Your task to perform on an android device: Go to Reddit.com Image 0: 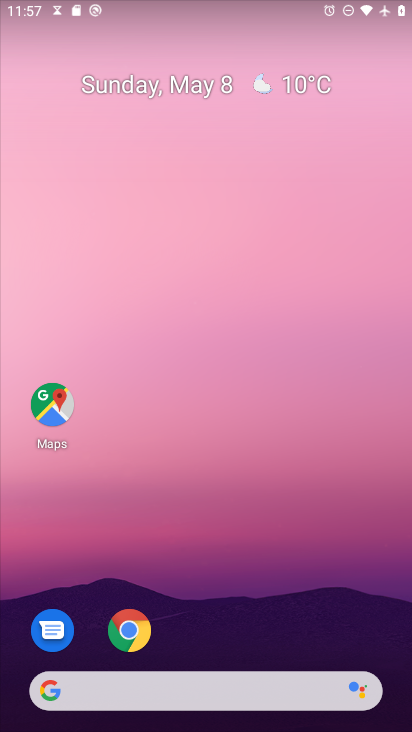
Step 0: click (137, 635)
Your task to perform on an android device: Go to Reddit.com Image 1: 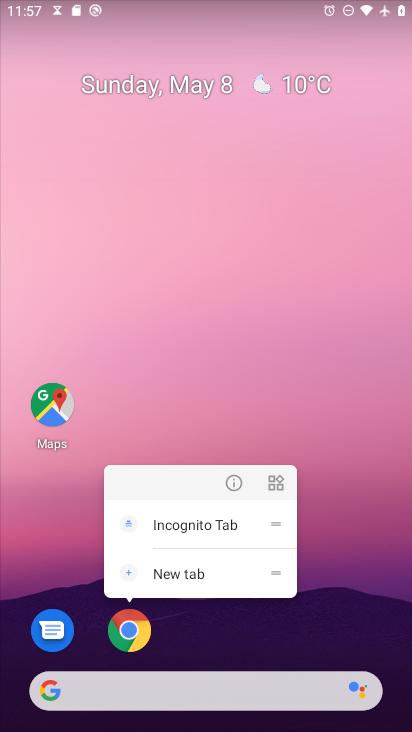
Step 1: click (129, 630)
Your task to perform on an android device: Go to Reddit.com Image 2: 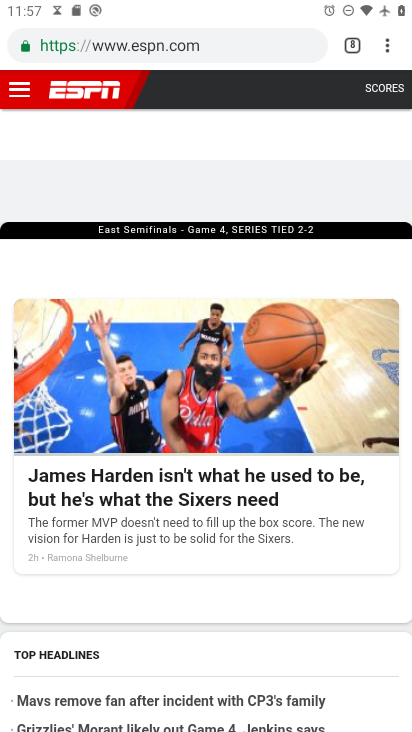
Step 2: drag from (388, 44) to (300, 88)
Your task to perform on an android device: Go to Reddit.com Image 3: 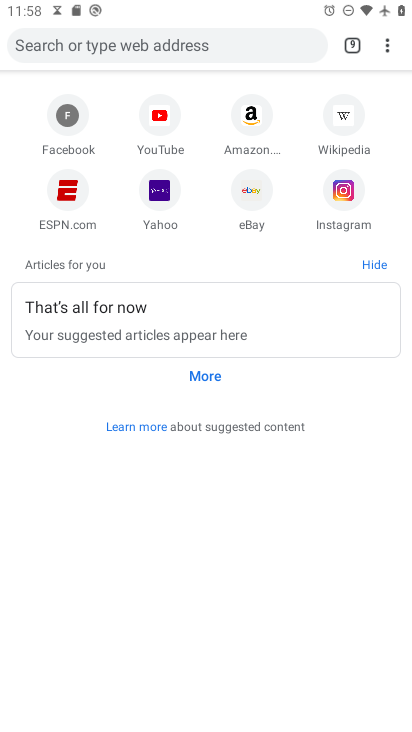
Step 3: click (233, 44)
Your task to perform on an android device: Go to Reddit.com Image 4: 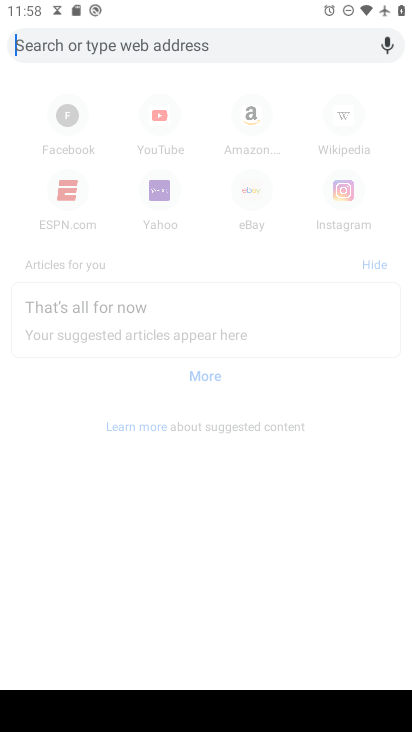
Step 4: type "reddit.com"
Your task to perform on an android device: Go to Reddit.com Image 5: 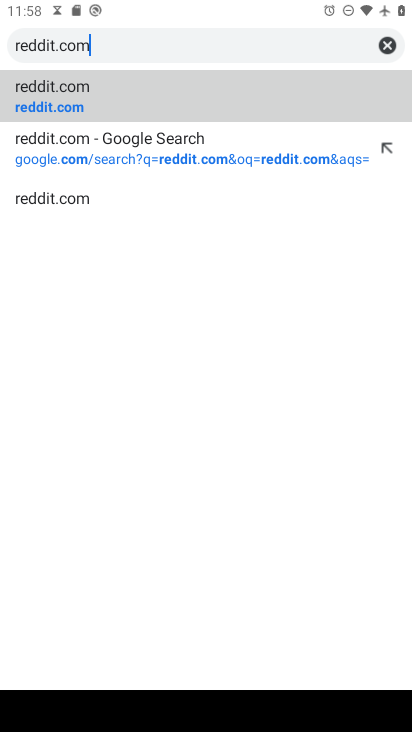
Step 5: click (111, 97)
Your task to perform on an android device: Go to Reddit.com Image 6: 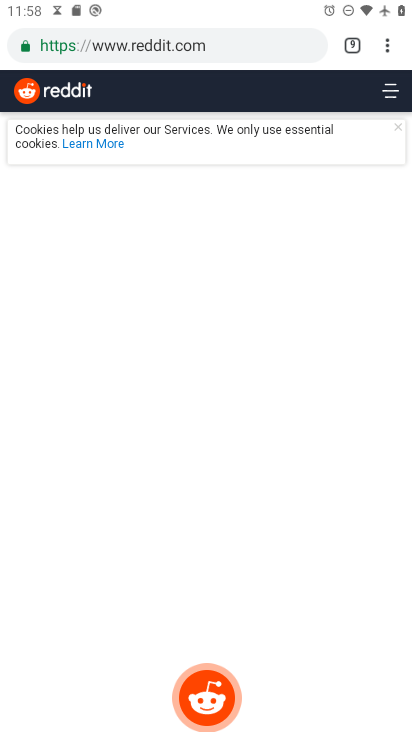
Step 6: task complete